Your task to perform on an android device: turn on data saver in the chrome app Image 0: 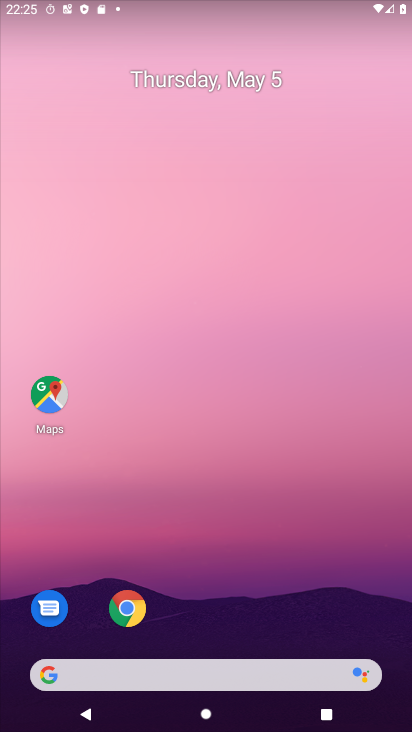
Step 0: drag from (245, 663) to (179, 71)
Your task to perform on an android device: turn on data saver in the chrome app Image 1: 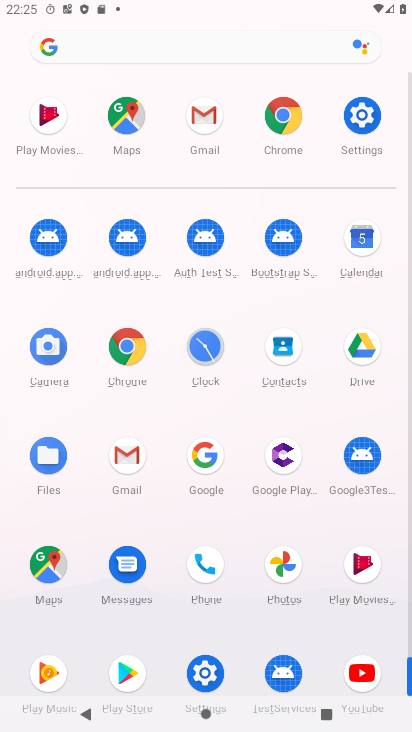
Step 1: click (131, 343)
Your task to perform on an android device: turn on data saver in the chrome app Image 2: 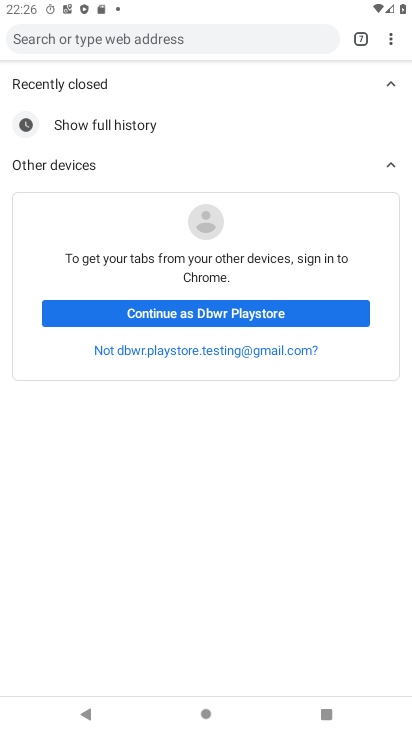
Step 2: click (388, 38)
Your task to perform on an android device: turn on data saver in the chrome app Image 3: 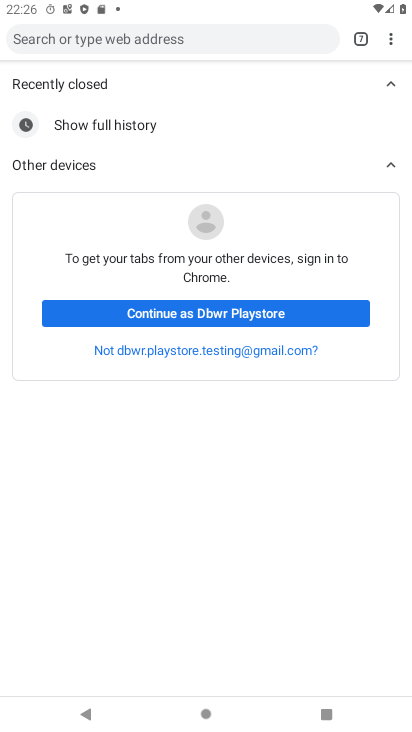
Step 3: drag from (393, 42) to (270, 334)
Your task to perform on an android device: turn on data saver in the chrome app Image 4: 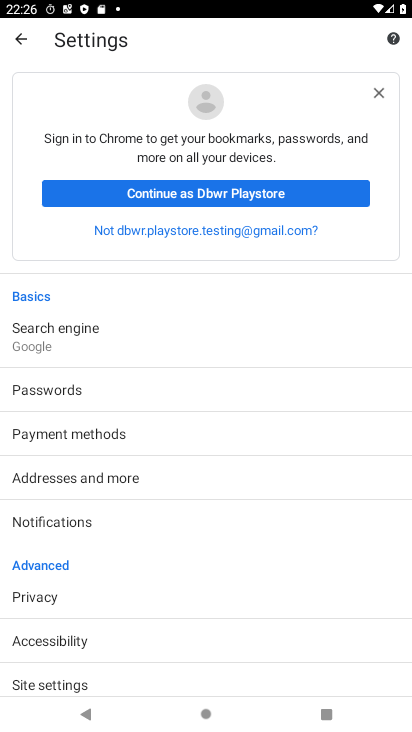
Step 4: drag from (109, 658) to (55, 188)
Your task to perform on an android device: turn on data saver in the chrome app Image 5: 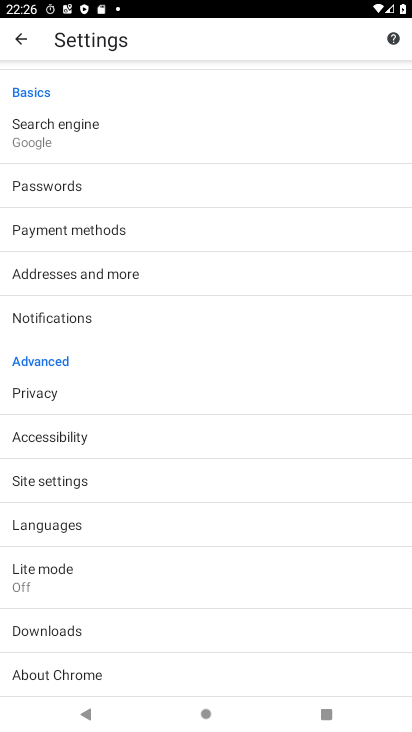
Step 5: click (65, 577)
Your task to perform on an android device: turn on data saver in the chrome app Image 6: 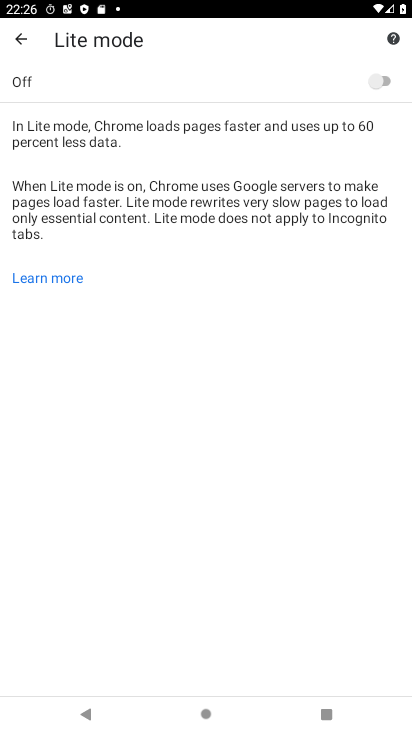
Step 6: click (384, 82)
Your task to perform on an android device: turn on data saver in the chrome app Image 7: 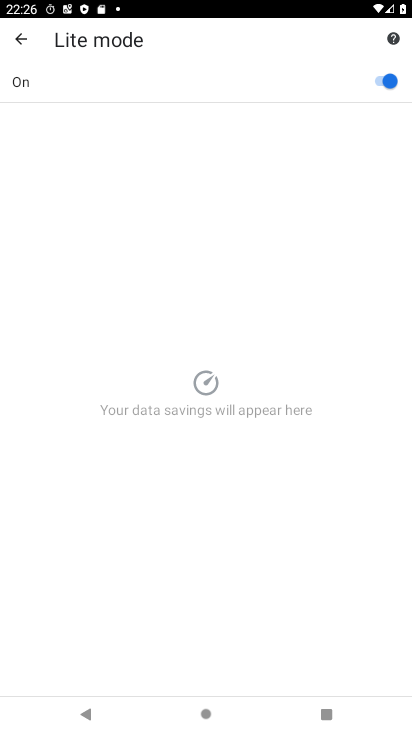
Step 7: task complete